Your task to perform on an android device: move a message to another label in the gmail app Image 0: 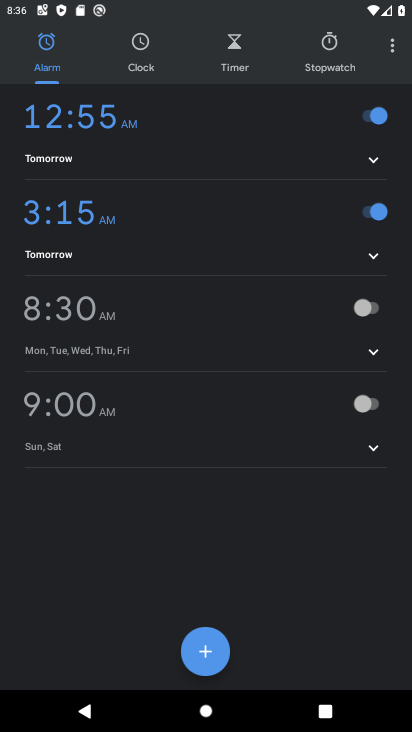
Step 0: press home button
Your task to perform on an android device: move a message to another label in the gmail app Image 1: 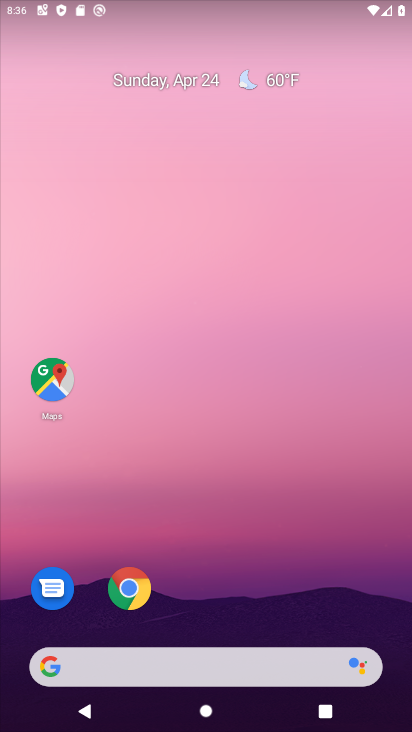
Step 1: drag from (233, 555) to (264, 147)
Your task to perform on an android device: move a message to another label in the gmail app Image 2: 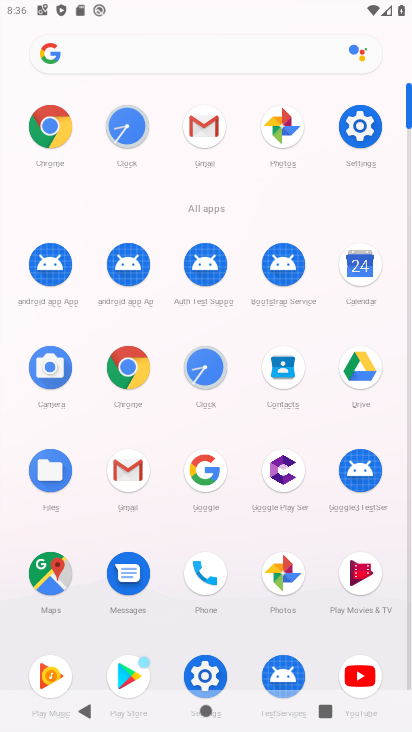
Step 2: click (203, 129)
Your task to perform on an android device: move a message to another label in the gmail app Image 3: 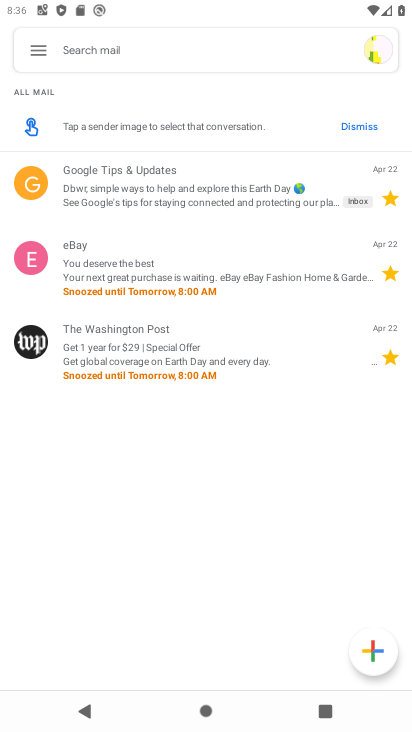
Step 3: click (266, 187)
Your task to perform on an android device: move a message to another label in the gmail app Image 4: 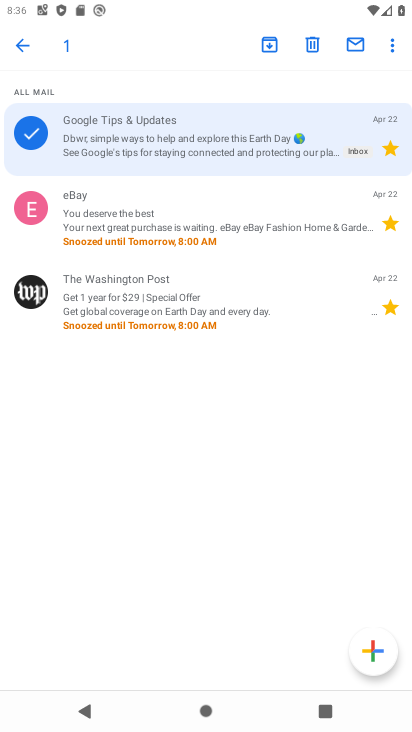
Step 4: click (392, 46)
Your task to perform on an android device: move a message to another label in the gmail app Image 5: 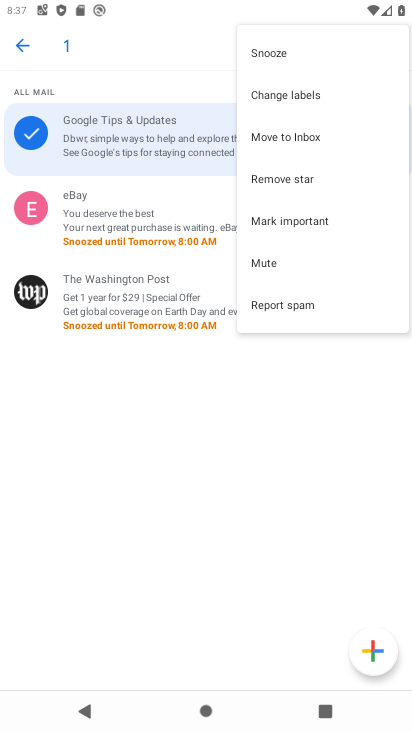
Step 5: click (304, 140)
Your task to perform on an android device: move a message to another label in the gmail app Image 6: 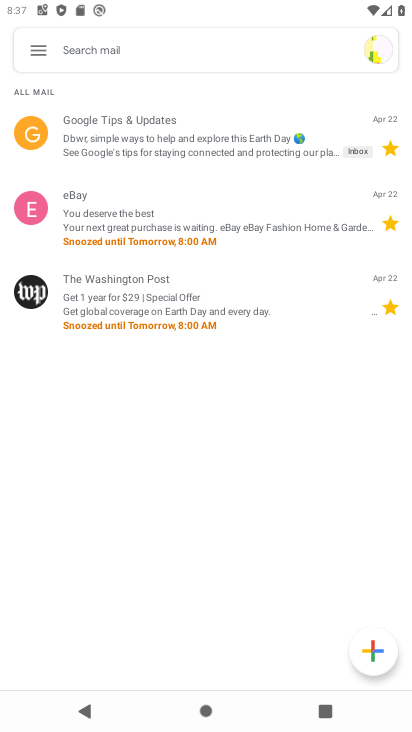
Step 6: task complete